Your task to perform on an android device: toggle location history Image 0: 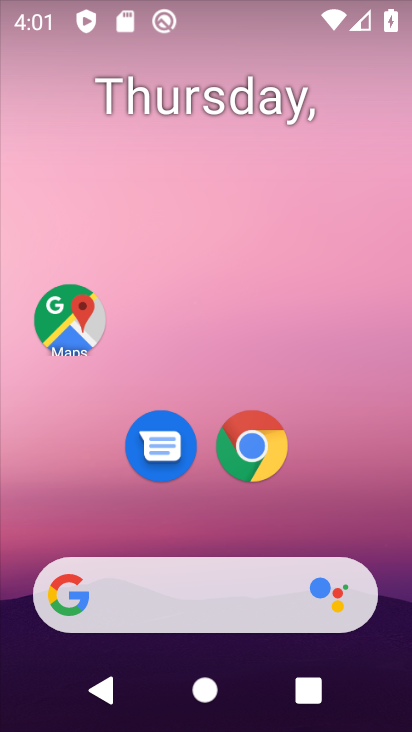
Step 0: drag from (113, 522) to (206, 32)
Your task to perform on an android device: toggle location history Image 1: 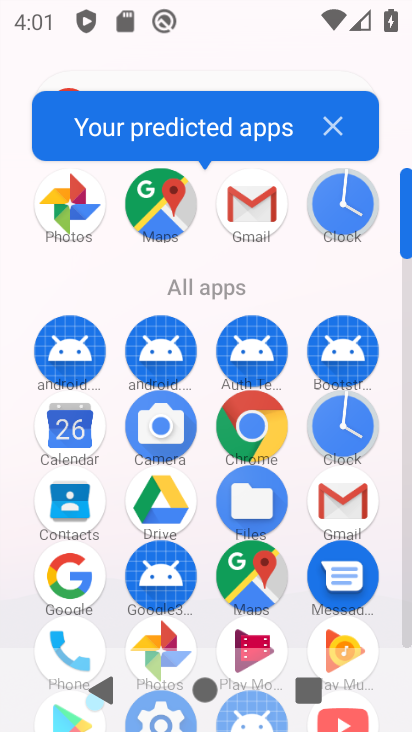
Step 1: drag from (182, 673) to (277, 250)
Your task to perform on an android device: toggle location history Image 2: 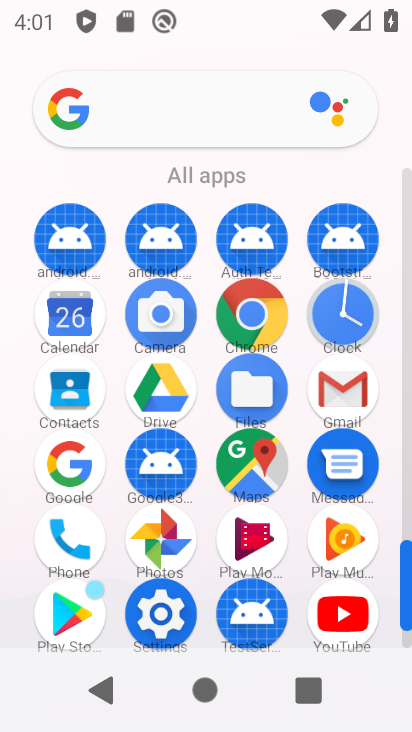
Step 2: click (151, 615)
Your task to perform on an android device: toggle location history Image 3: 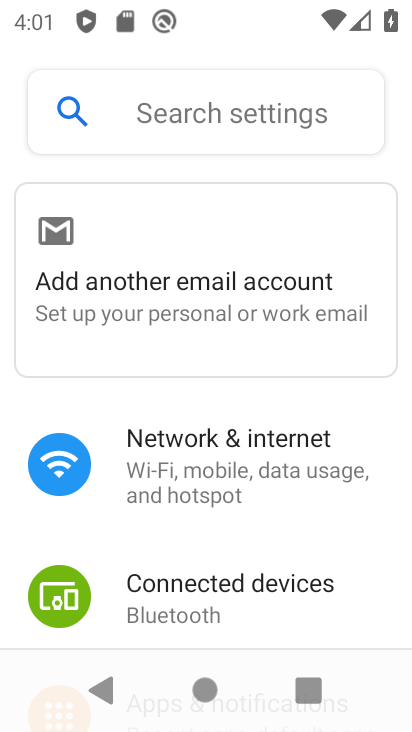
Step 3: drag from (173, 647) to (354, 151)
Your task to perform on an android device: toggle location history Image 4: 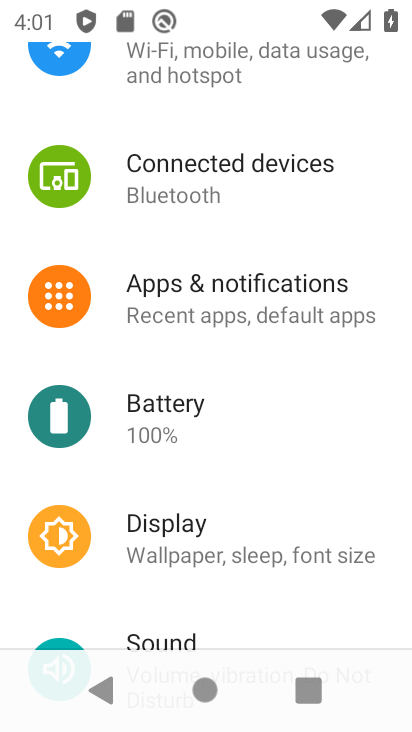
Step 4: drag from (165, 609) to (276, 200)
Your task to perform on an android device: toggle location history Image 5: 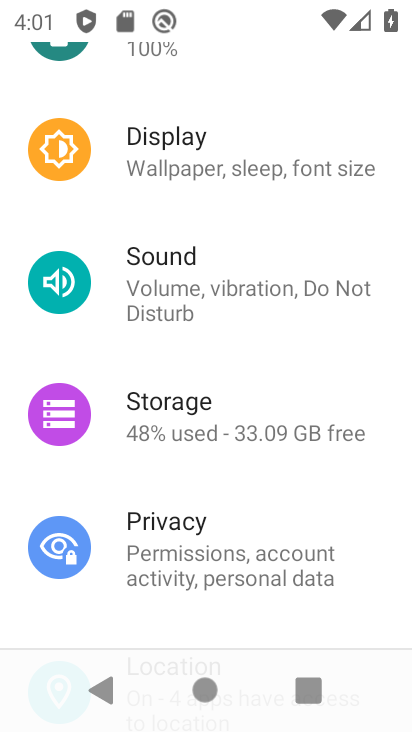
Step 5: drag from (178, 580) to (259, 212)
Your task to perform on an android device: toggle location history Image 6: 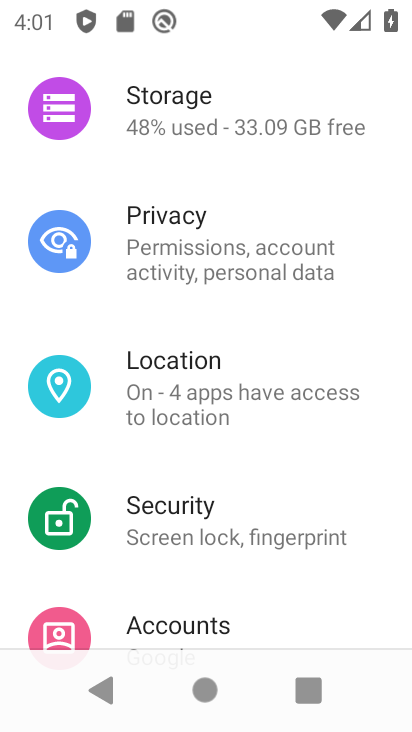
Step 6: drag from (123, 585) to (187, 391)
Your task to perform on an android device: toggle location history Image 7: 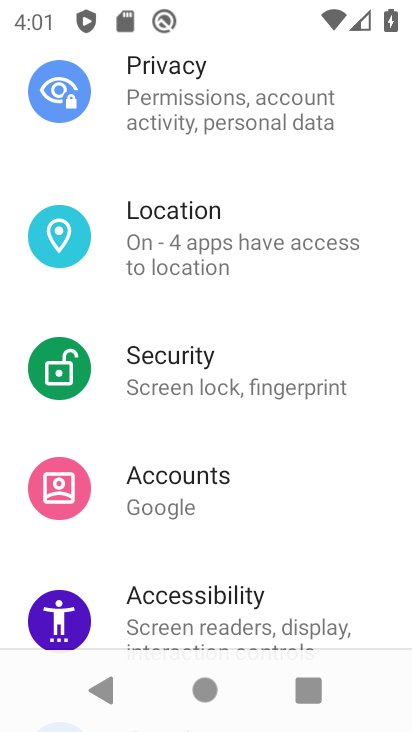
Step 7: click (190, 246)
Your task to perform on an android device: toggle location history Image 8: 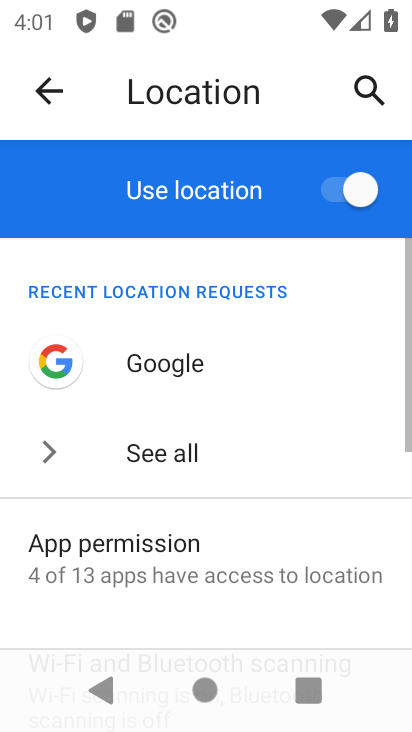
Step 8: drag from (111, 632) to (244, 239)
Your task to perform on an android device: toggle location history Image 9: 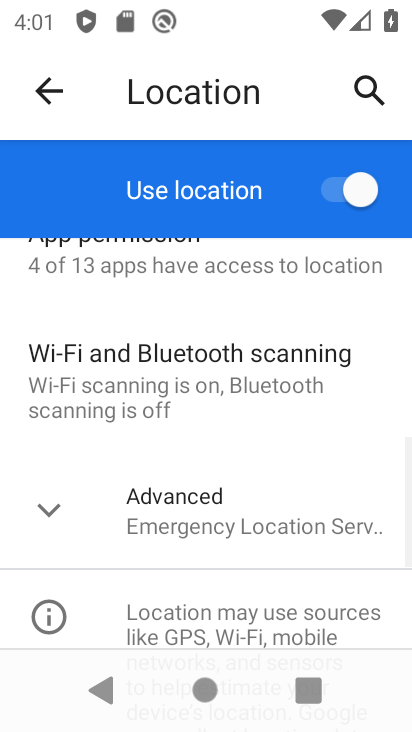
Step 9: click (213, 519)
Your task to perform on an android device: toggle location history Image 10: 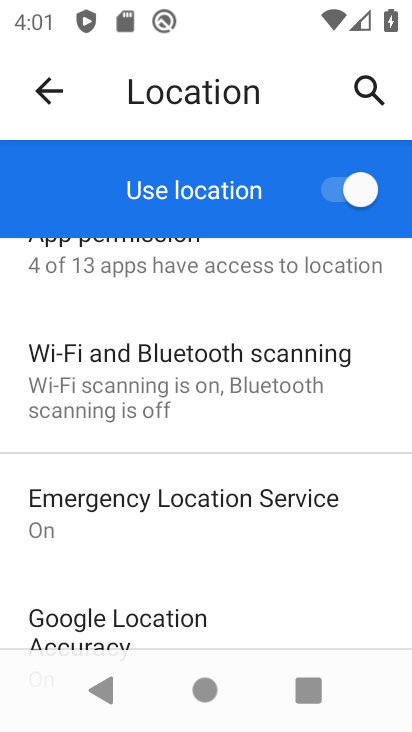
Step 10: drag from (184, 588) to (248, 387)
Your task to perform on an android device: toggle location history Image 11: 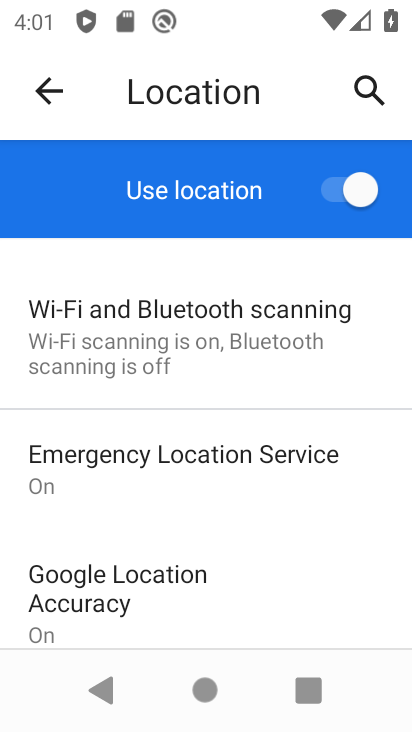
Step 11: drag from (113, 598) to (251, 239)
Your task to perform on an android device: toggle location history Image 12: 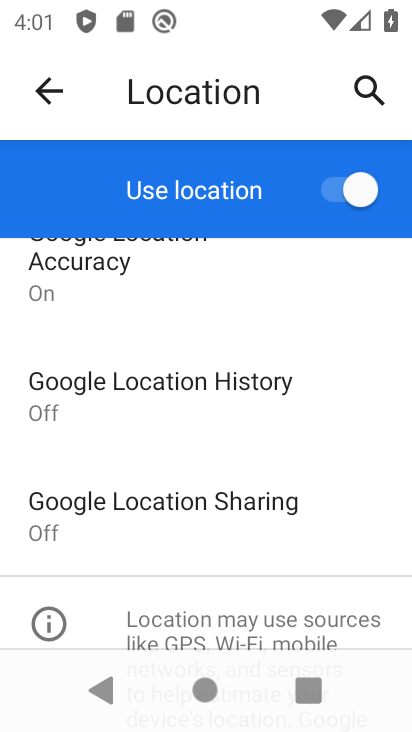
Step 12: click (233, 405)
Your task to perform on an android device: toggle location history Image 13: 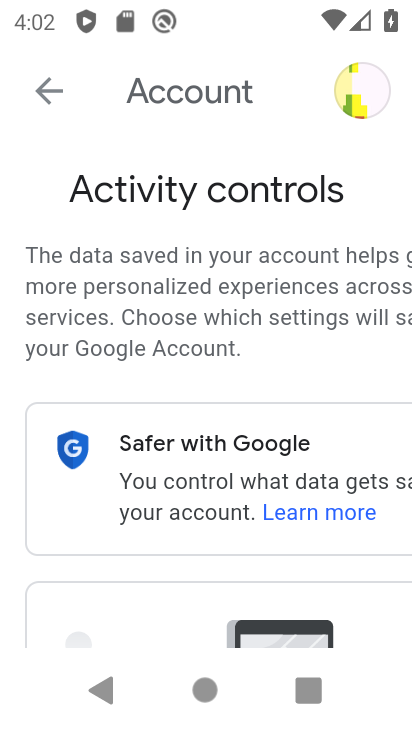
Step 13: drag from (239, 559) to (397, 67)
Your task to perform on an android device: toggle location history Image 14: 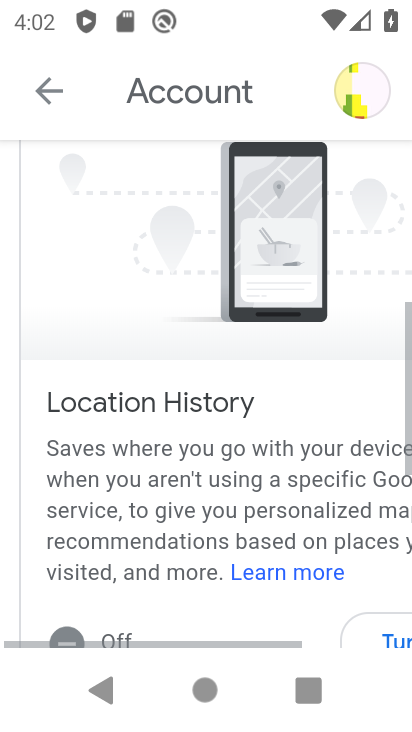
Step 14: drag from (207, 594) to (276, 295)
Your task to perform on an android device: toggle location history Image 15: 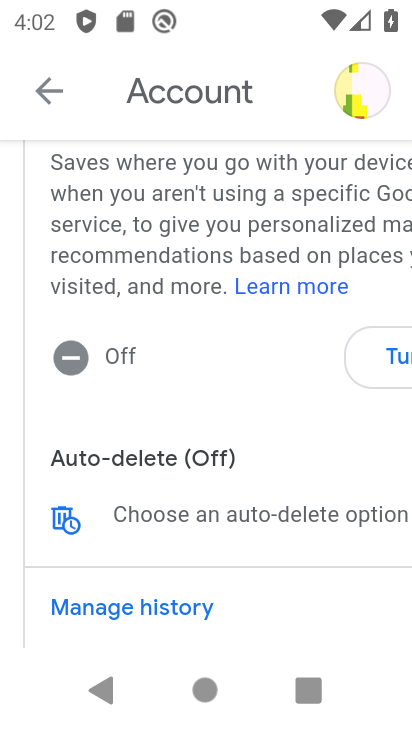
Step 15: click (380, 349)
Your task to perform on an android device: toggle location history Image 16: 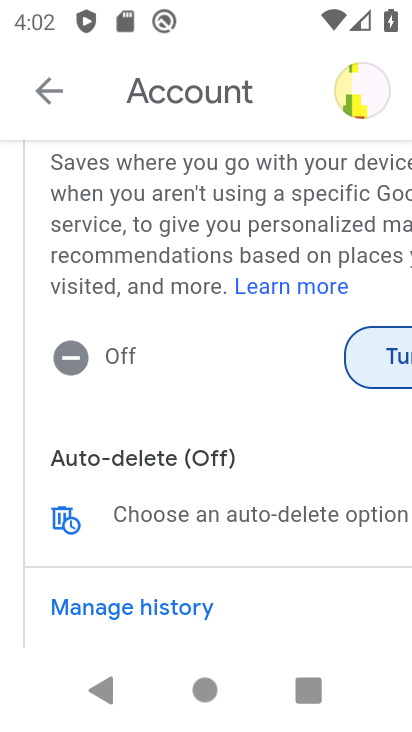
Step 16: click (402, 356)
Your task to perform on an android device: toggle location history Image 17: 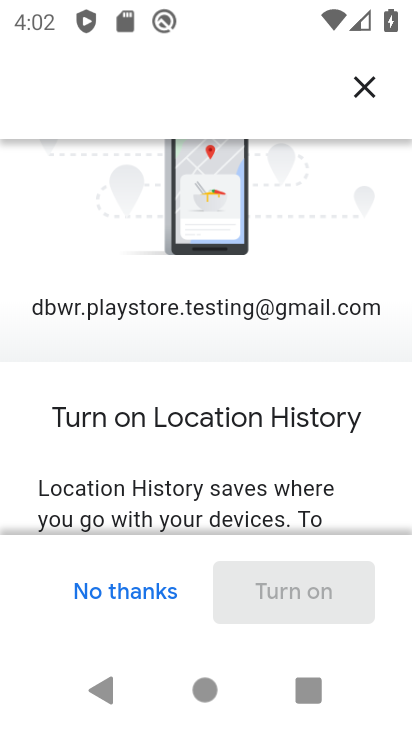
Step 17: drag from (197, 543) to (303, 105)
Your task to perform on an android device: toggle location history Image 18: 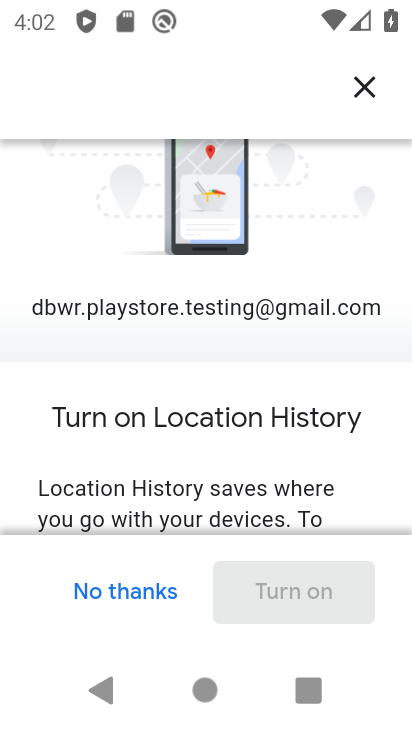
Step 18: drag from (134, 485) to (238, 115)
Your task to perform on an android device: toggle location history Image 19: 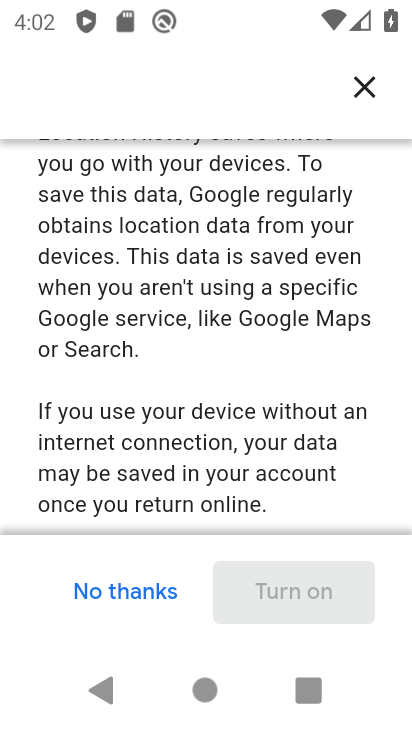
Step 19: drag from (178, 478) to (267, 96)
Your task to perform on an android device: toggle location history Image 20: 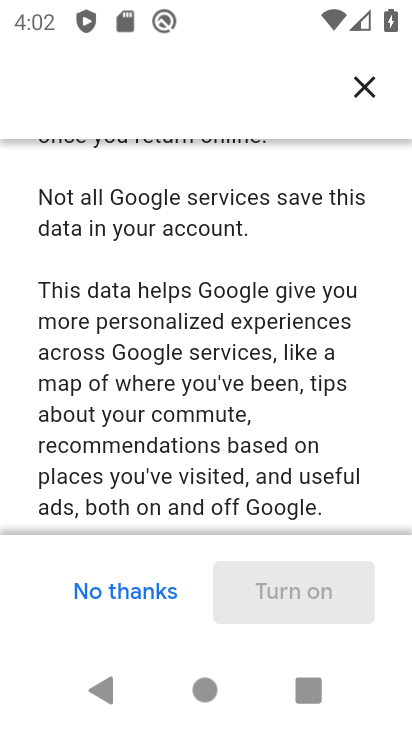
Step 20: drag from (242, 412) to (293, 137)
Your task to perform on an android device: toggle location history Image 21: 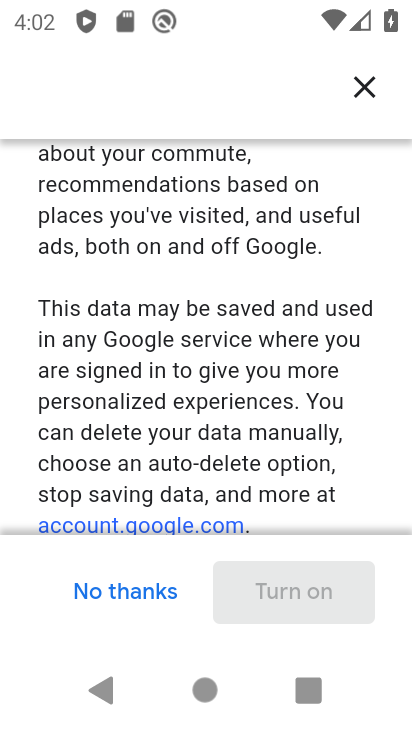
Step 21: drag from (230, 427) to (268, 135)
Your task to perform on an android device: toggle location history Image 22: 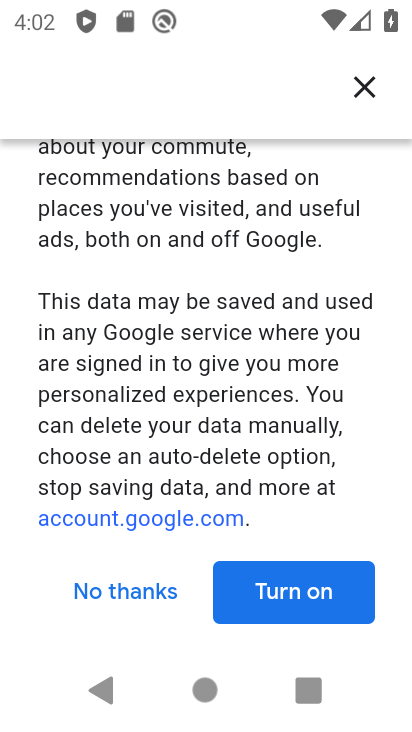
Step 22: click (326, 581)
Your task to perform on an android device: toggle location history Image 23: 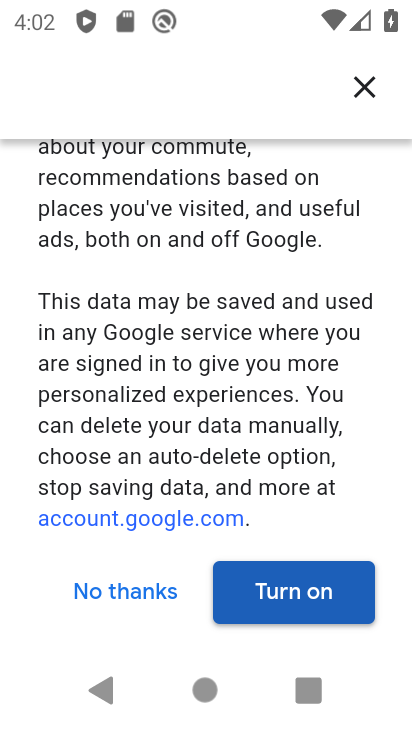
Step 23: click (322, 597)
Your task to perform on an android device: toggle location history Image 24: 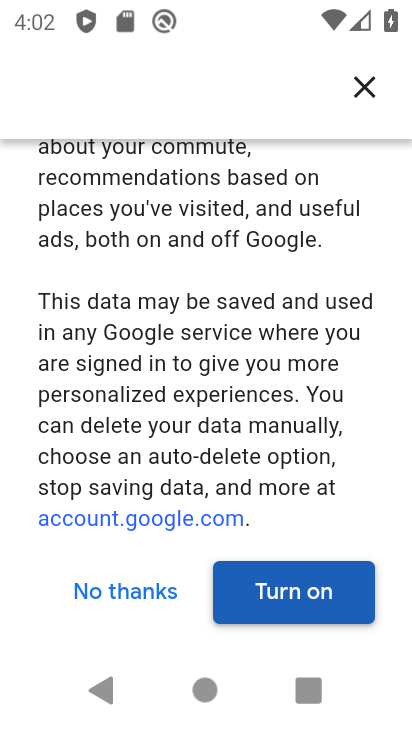
Step 24: click (322, 597)
Your task to perform on an android device: toggle location history Image 25: 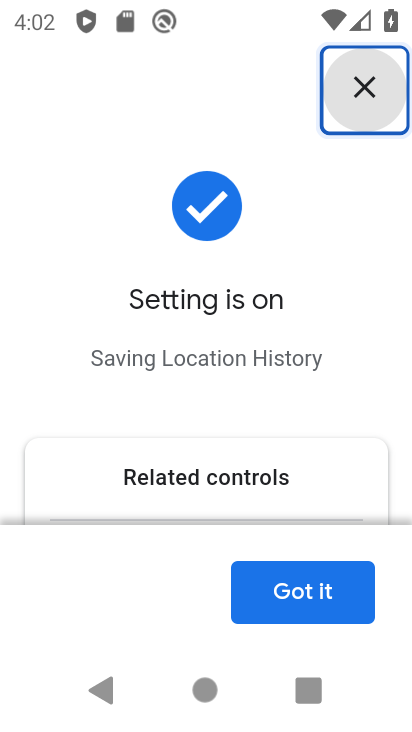
Step 25: click (322, 597)
Your task to perform on an android device: toggle location history Image 26: 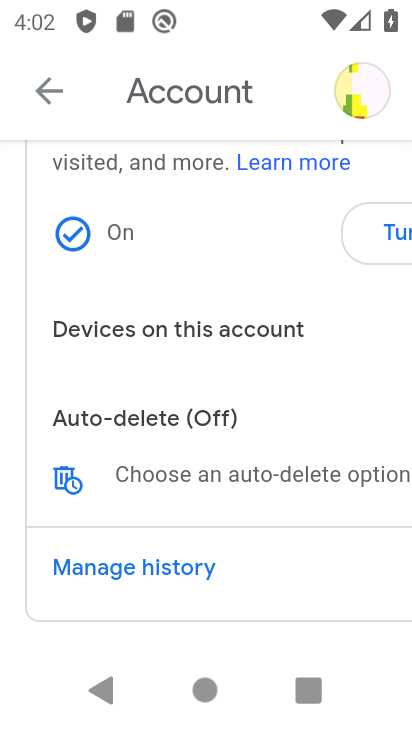
Step 26: task complete